Your task to perform on an android device: Go to Google Image 0: 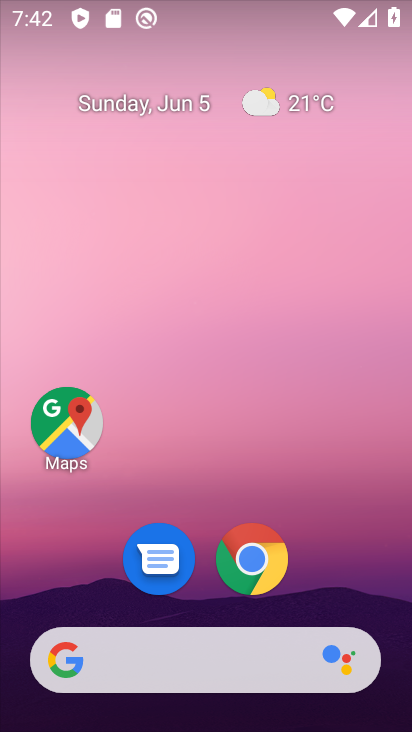
Step 0: drag from (333, 458) to (337, 108)
Your task to perform on an android device: Go to Google Image 1: 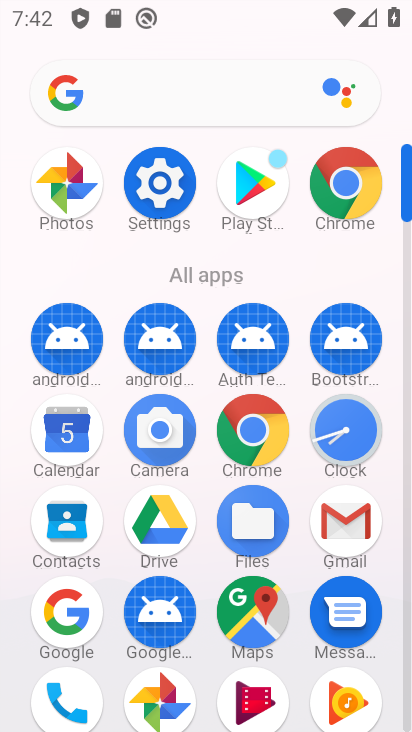
Step 1: click (78, 616)
Your task to perform on an android device: Go to Google Image 2: 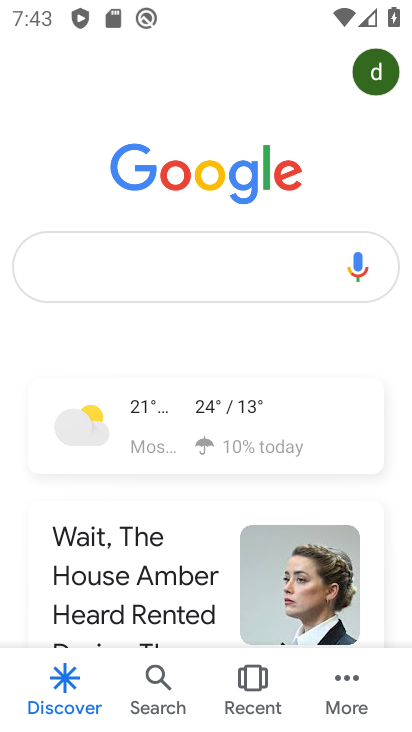
Step 2: task complete